Your task to perform on an android device: Open eBay Image 0: 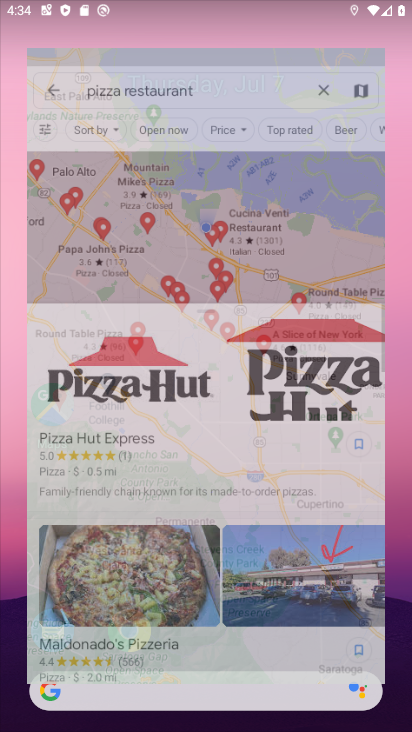
Step 0: press home button
Your task to perform on an android device: Open eBay Image 1: 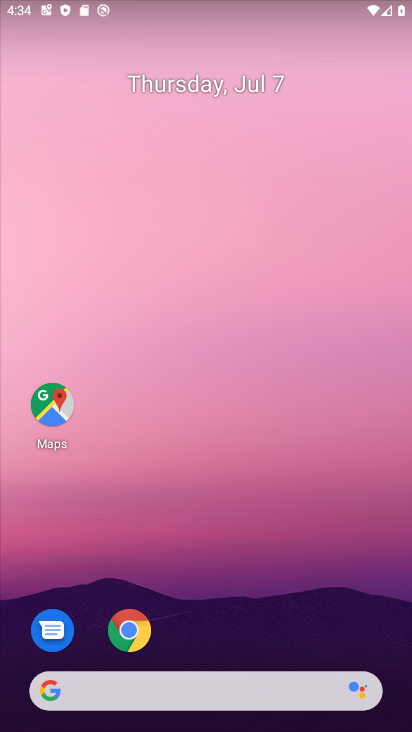
Step 1: click (138, 631)
Your task to perform on an android device: Open eBay Image 2: 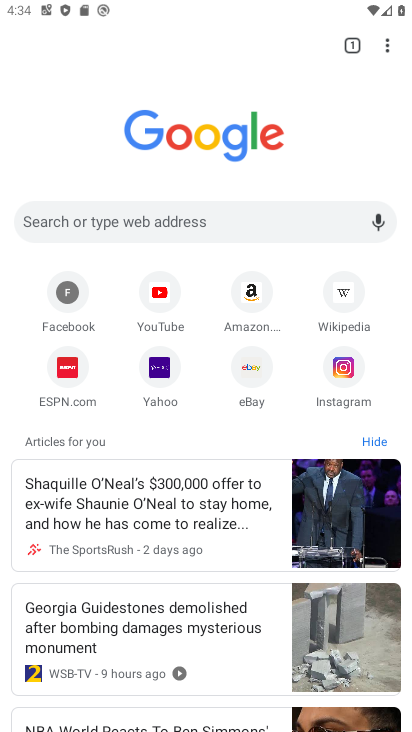
Step 2: click (251, 374)
Your task to perform on an android device: Open eBay Image 3: 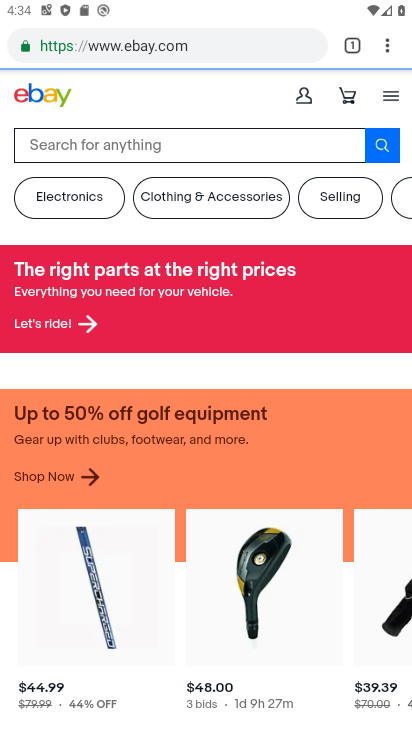
Step 3: task complete